Your task to perform on an android device: What's on my calendar tomorrow? Image 0: 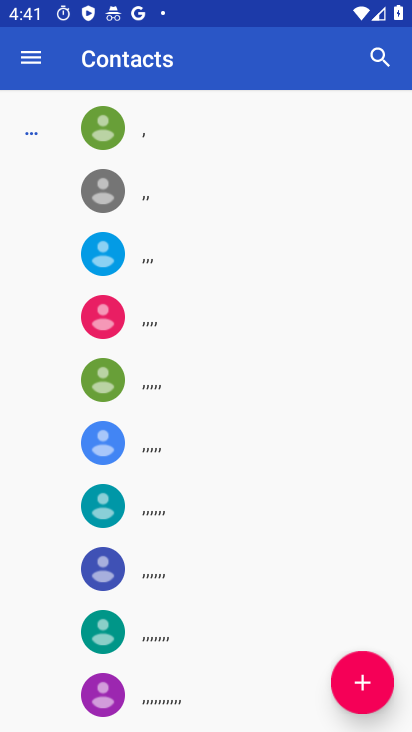
Step 0: press home button
Your task to perform on an android device: What's on my calendar tomorrow? Image 1: 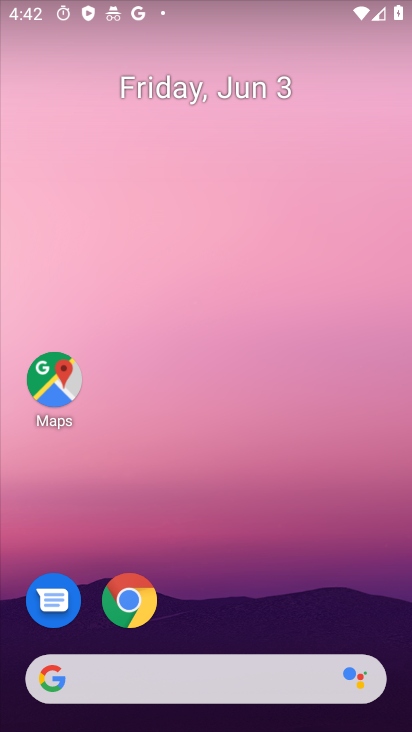
Step 1: drag from (381, 611) to (329, 205)
Your task to perform on an android device: What's on my calendar tomorrow? Image 2: 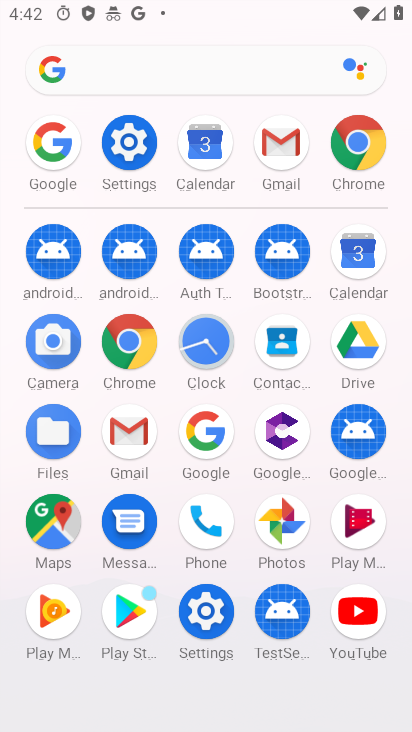
Step 2: click (367, 258)
Your task to perform on an android device: What's on my calendar tomorrow? Image 3: 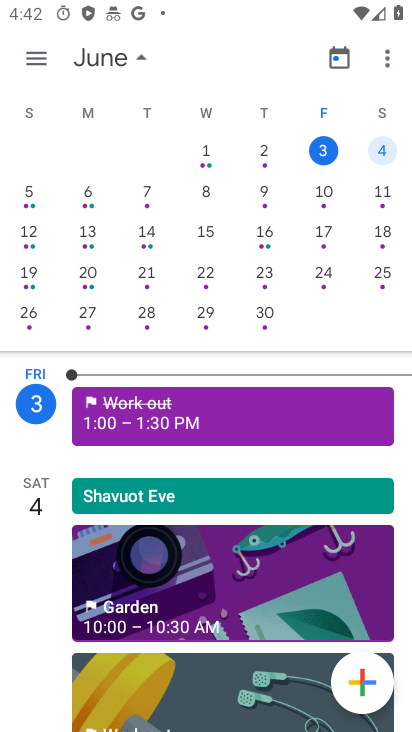
Step 3: click (372, 149)
Your task to perform on an android device: What's on my calendar tomorrow? Image 4: 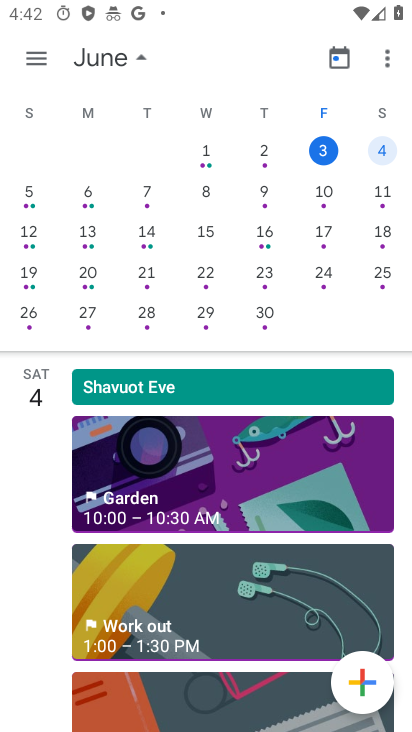
Step 4: task complete